Your task to perform on an android device: allow cookies in the chrome app Image 0: 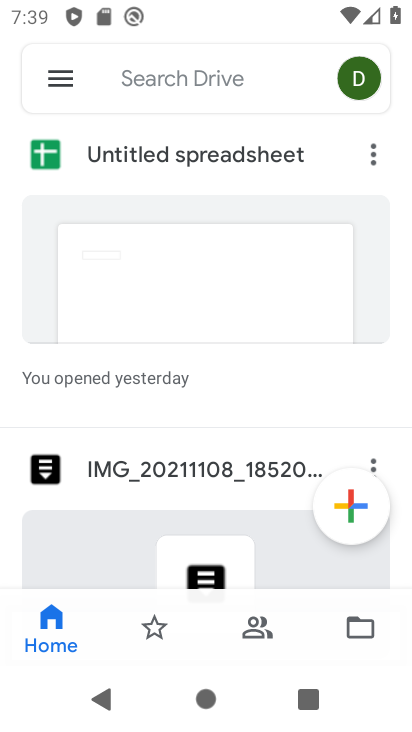
Step 0: press home button
Your task to perform on an android device: allow cookies in the chrome app Image 1: 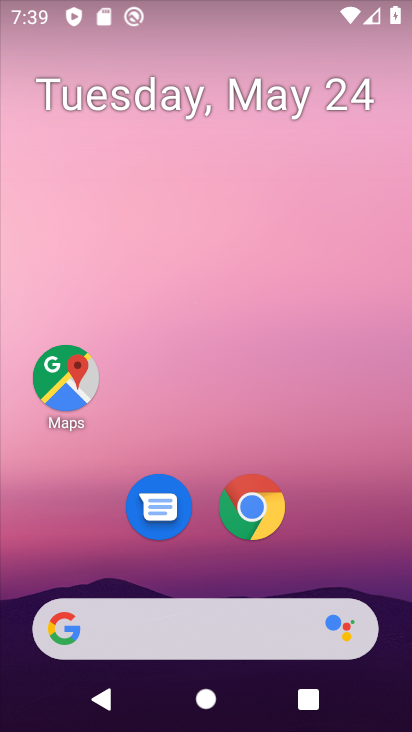
Step 1: click (248, 519)
Your task to perform on an android device: allow cookies in the chrome app Image 2: 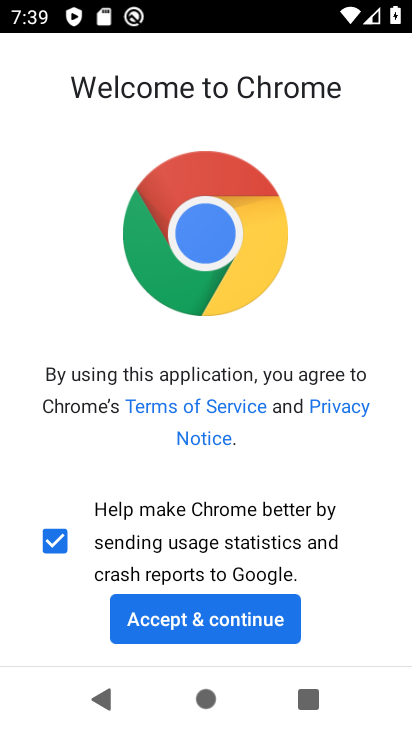
Step 2: click (208, 614)
Your task to perform on an android device: allow cookies in the chrome app Image 3: 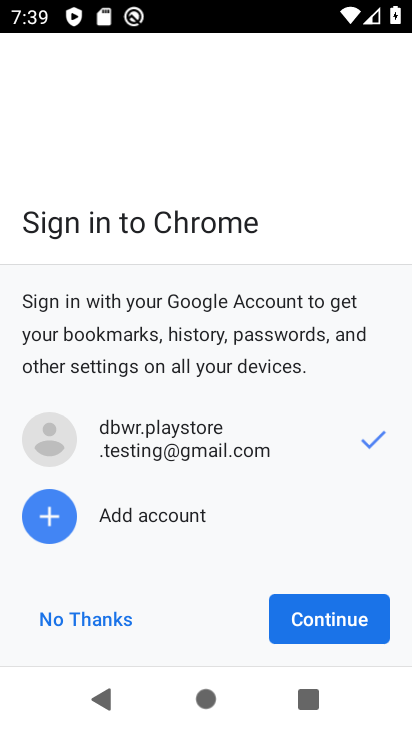
Step 3: click (343, 621)
Your task to perform on an android device: allow cookies in the chrome app Image 4: 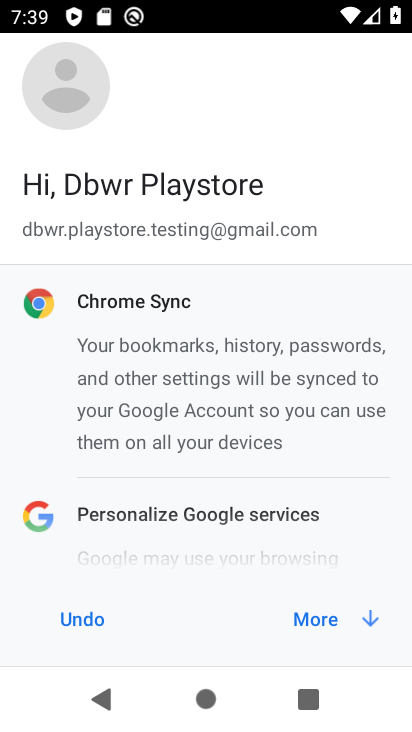
Step 4: click (319, 608)
Your task to perform on an android device: allow cookies in the chrome app Image 5: 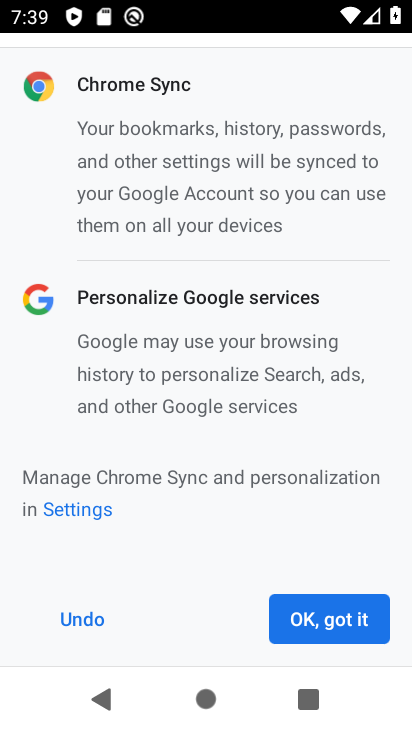
Step 5: click (313, 621)
Your task to perform on an android device: allow cookies in the chrome app Image 6: 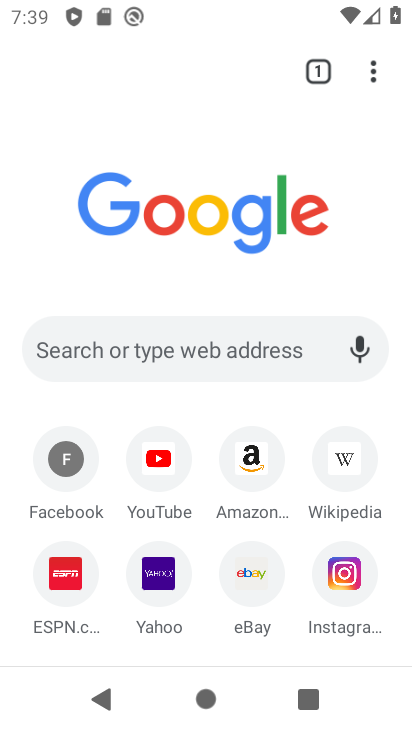
Step 6: drag from (373, 78) to (242, 508)
Your task to perform on an android device: allow cookies in the chrome app Image 7: 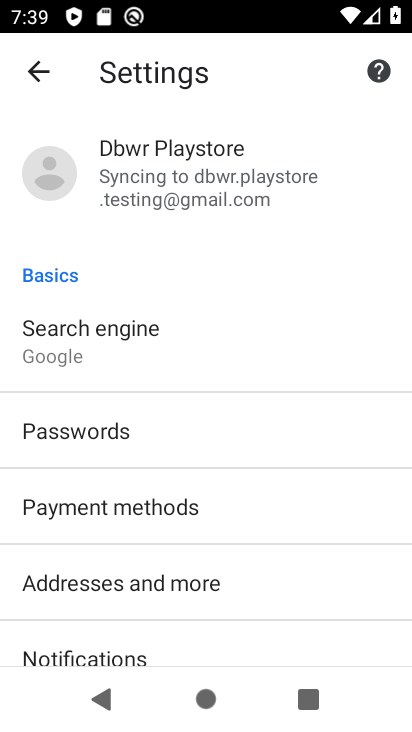
Step 7: drag from (216, 626) to (402, 149)
Your task to perform on an android device: allow cookies in the chrome app Image 8: 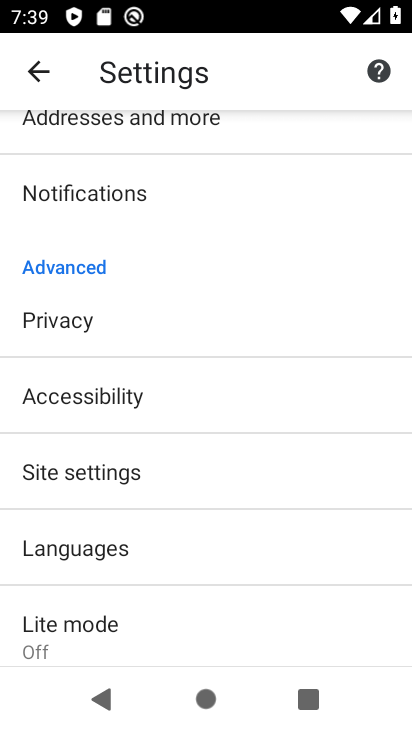
Step 8: click (97, 472)
Your task to perform on an android device: allow cookies in the chrome app Image 9: 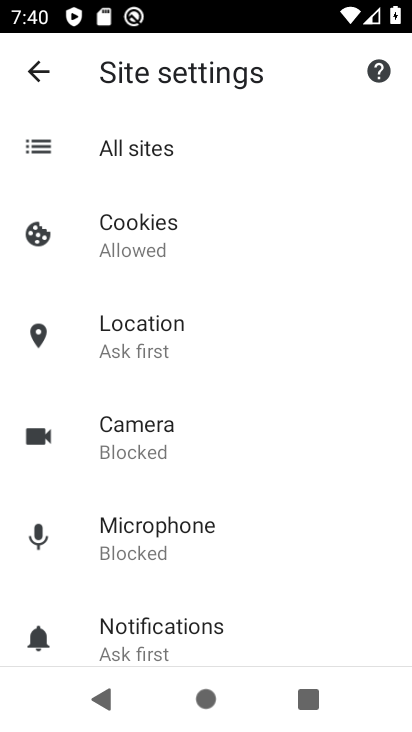
Step 9: click (132, 232)
Your task to perform on an android device: allow cookies in the chrome app Image 10: 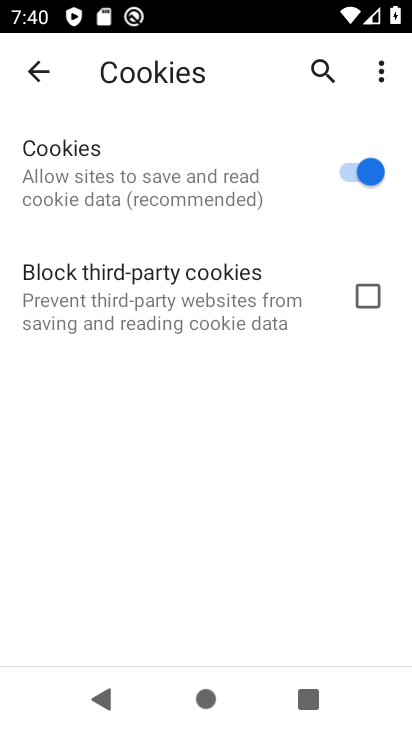
Step 10: task complete